Your task to perform on an android device: Set the phone to "Do not disturb". Image 0: 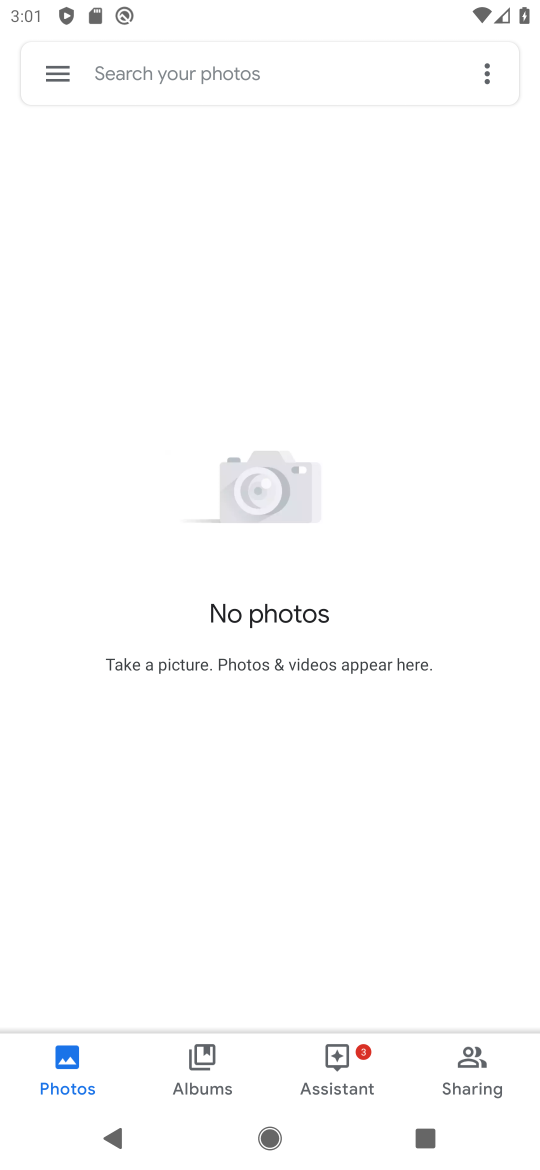
Step 0: drag from (260, 5) to (284, 802)
Your task to perform on an android device: Set the phone to "Do not disturb". Image 1: 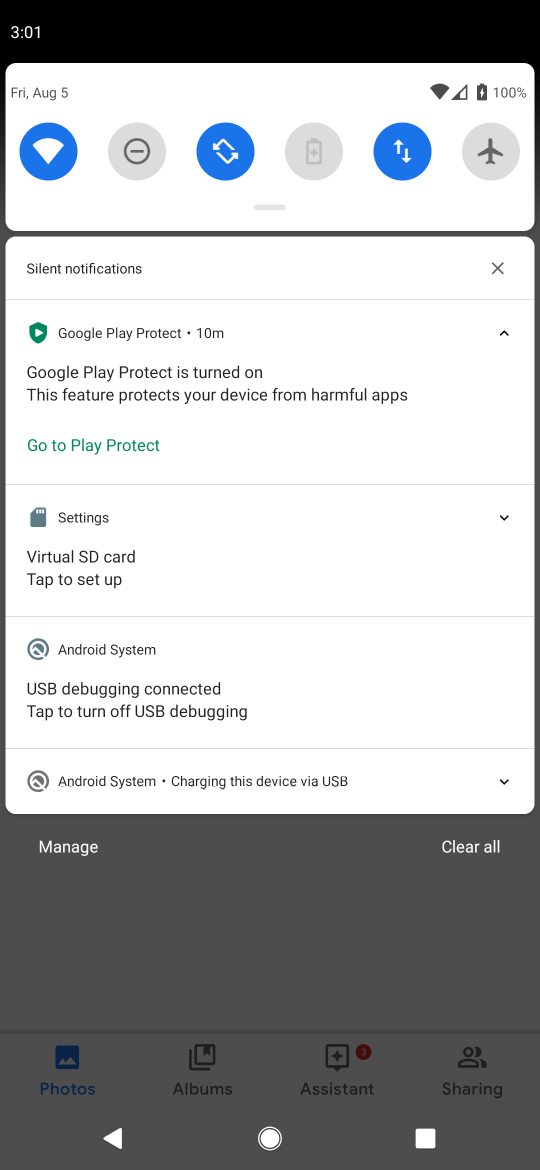
Step 1: click (135, 145)
Your task to perform on an android device: Set the phone to "Do not disturb". Image 2: 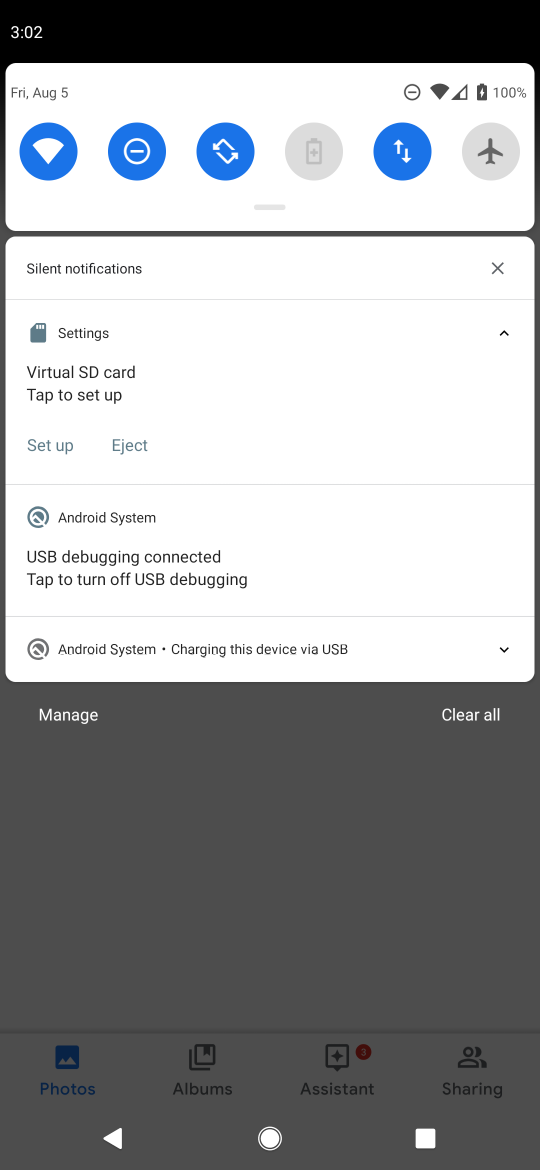
Step 2: task complete